Your task to perform on an android device: toggle notifications settings in the gmail app Image 0: 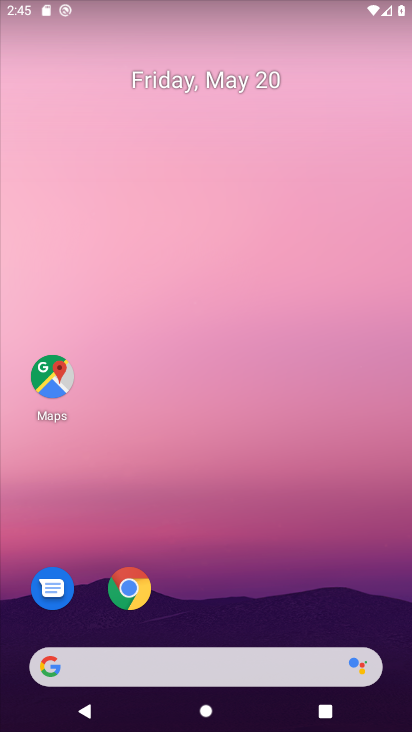
Step 0: drag from (264, 577) to (299, 130)
Your task to perform on an android device: toggle notifications settings in the gmail app Image 1: 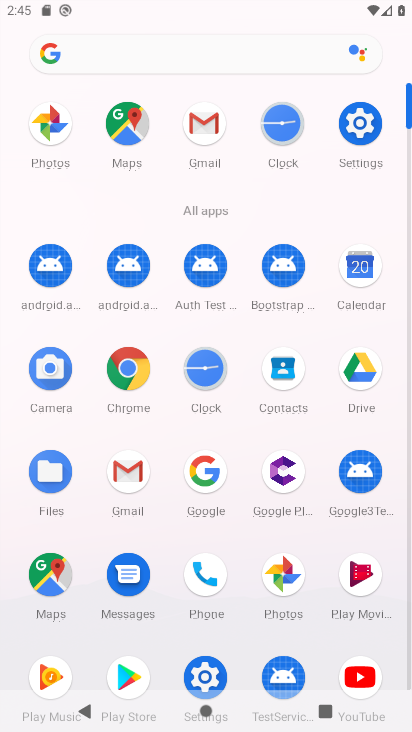
Step 1: click (202, 128)
Your task to perform on an android device: toggle notifications settings in the gmail app Image 2: 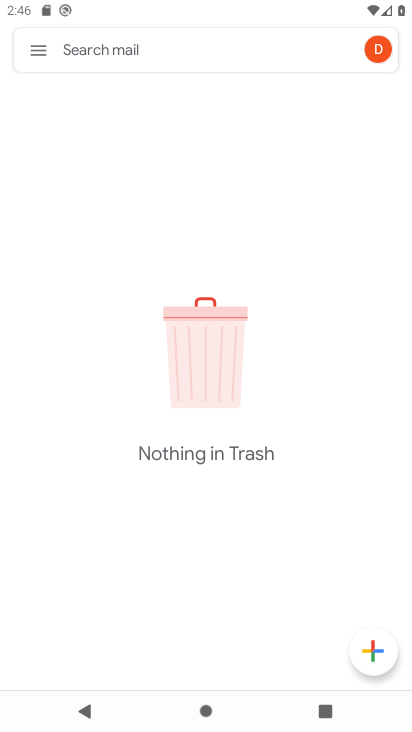
Step 2: click (44, 49)
Your task to perform on an android device: toggle notifications settings in the gmail app Image 3: 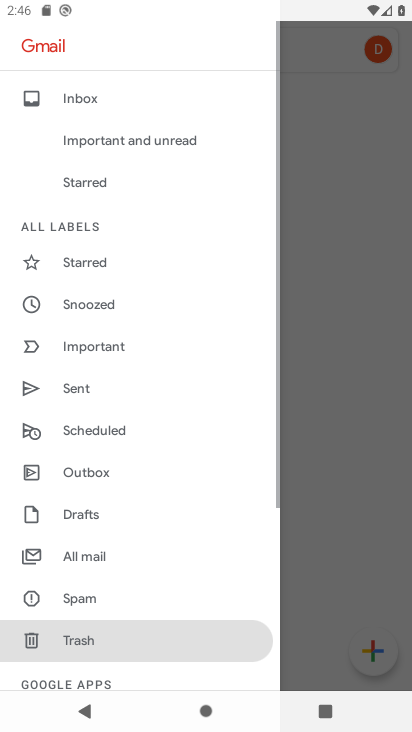
Step 3: drag from (216, 591) to (213, 200)
Your task to perform on an android device: toggle notifications settings in the gmail app Image 4: 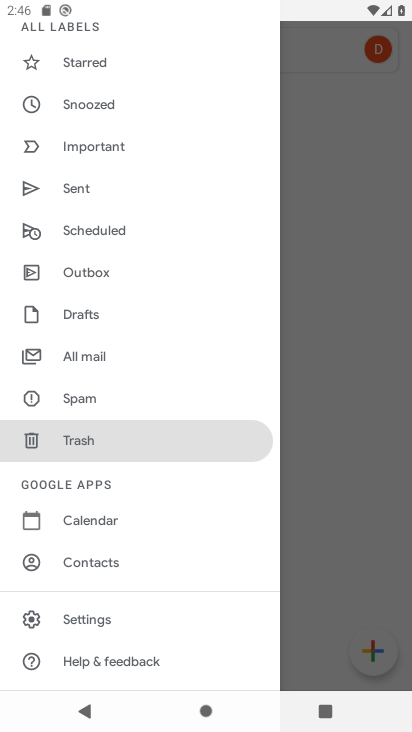
Step 4: click (103, 620)
Your task to perform on an android device: toggle notifications settings in the gmail app Image 5: 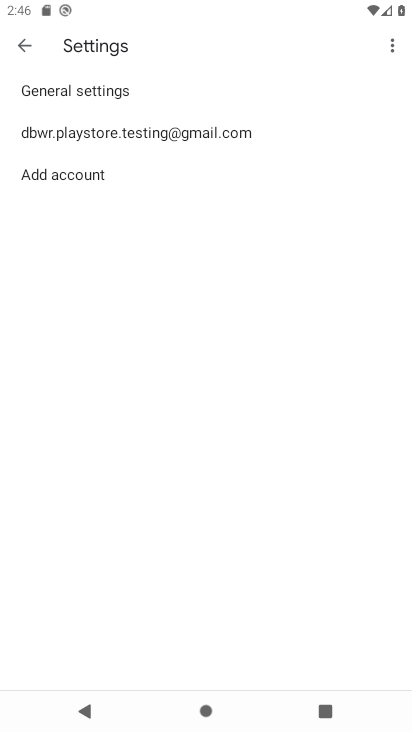
Step 5: click (100, 126)
Your task to perform on an android device: toggle notifications settings in the gmail app Image 6: 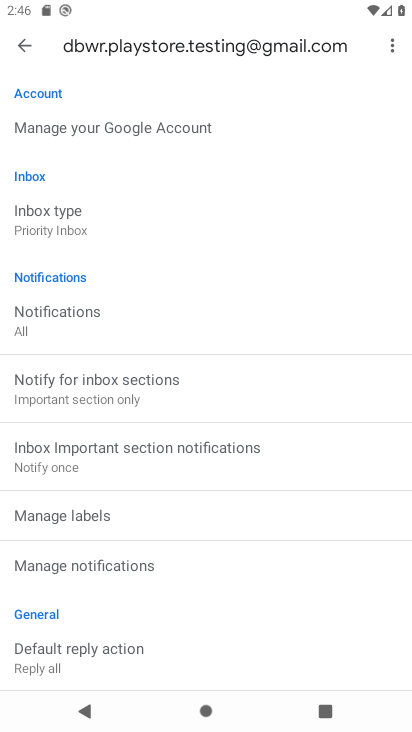
Step 6: drag from (155, 556) to (212, 374)
Your task to perform on an android device: toggle notifications settings in the gmail app Image 7: 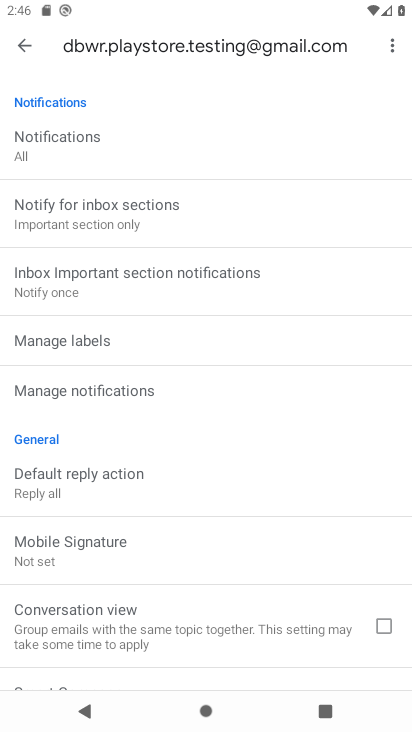
Step 7: click (137, 398)
Your task to perform on an android device: toggle notifications settings in the gmail app Image 8: 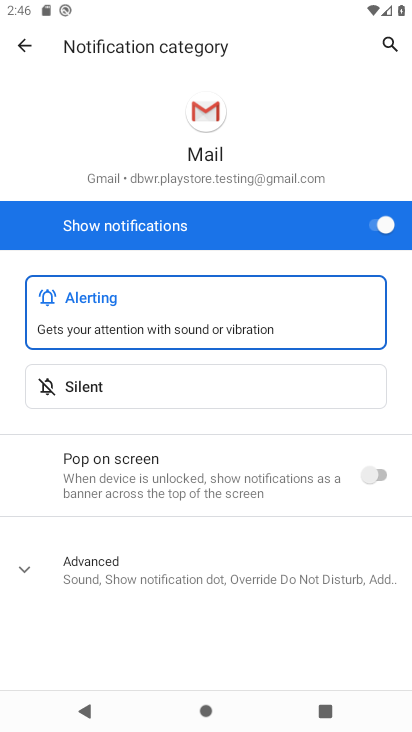
Step 8: click (363, 218)
Your task to perform on an android device: toggle notifications settings in the gmail app Image 9: 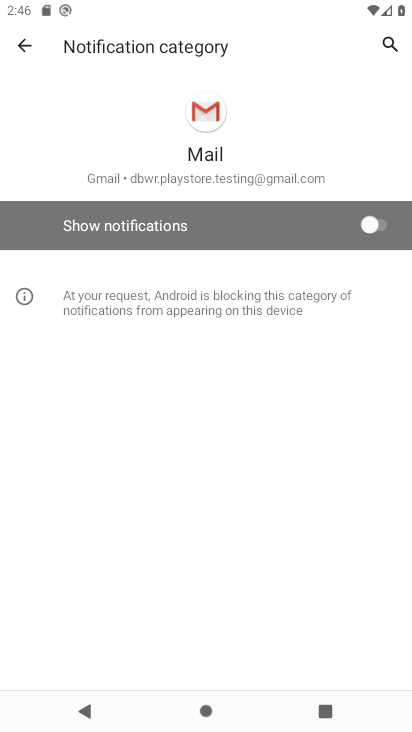
Step 9: task complete